Your task to perform on an android device: Go to Google maps Image 0: 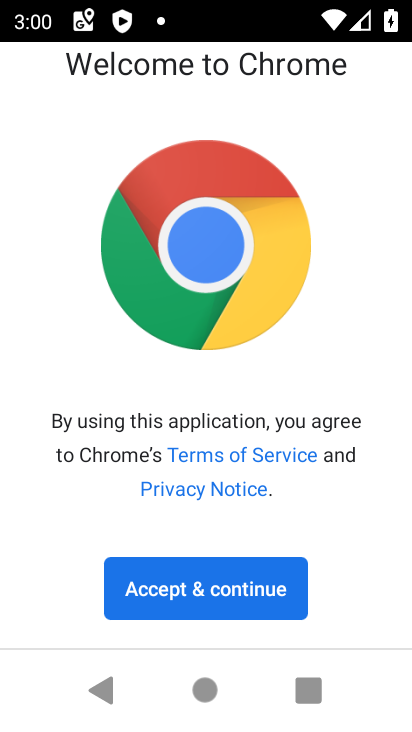
Step 0: press home button
Your task to perform on an android device: Go to Google maps Image 1: 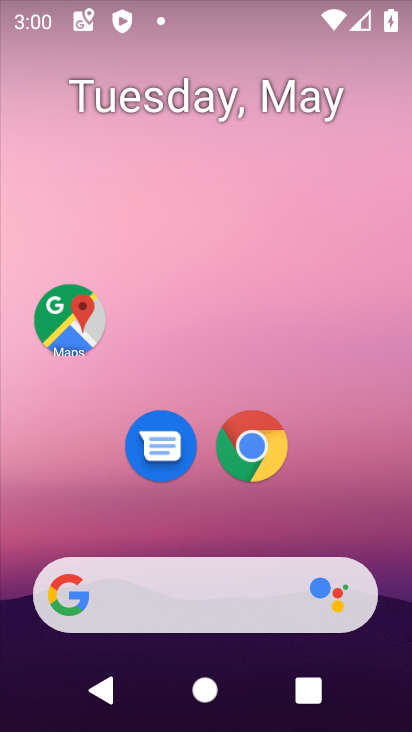
Step 1: drag from (127, 558) to (212, 145)
Your task to perform on an android device: Go to Google maps Image 2: 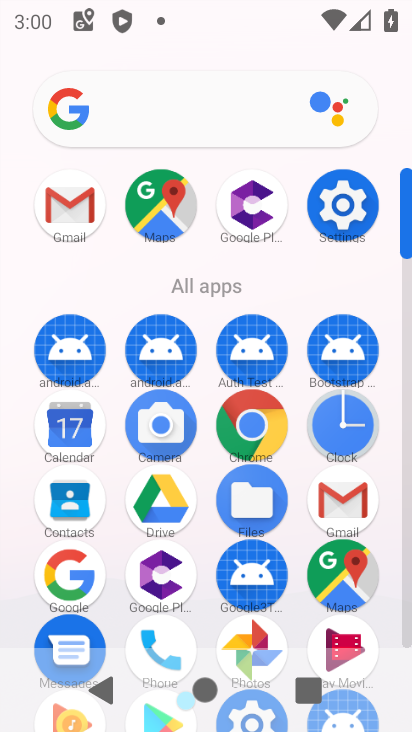
Step 2: click (335, 564)
Your task to perform on an android device: Go to Google maps Image 3: 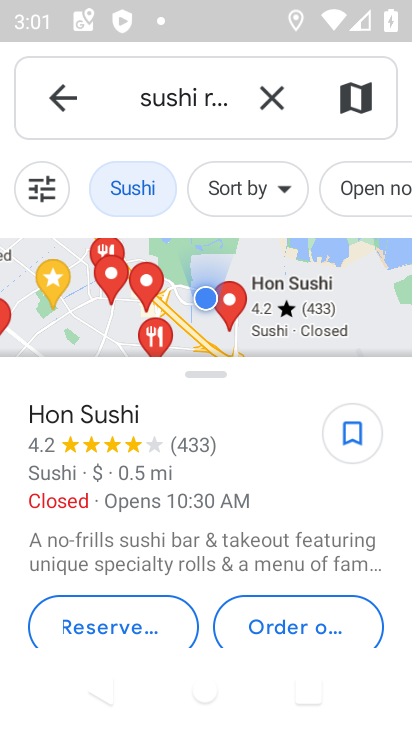
Step 3: task complete